Your task to perform on an android device: check storage Image 0: 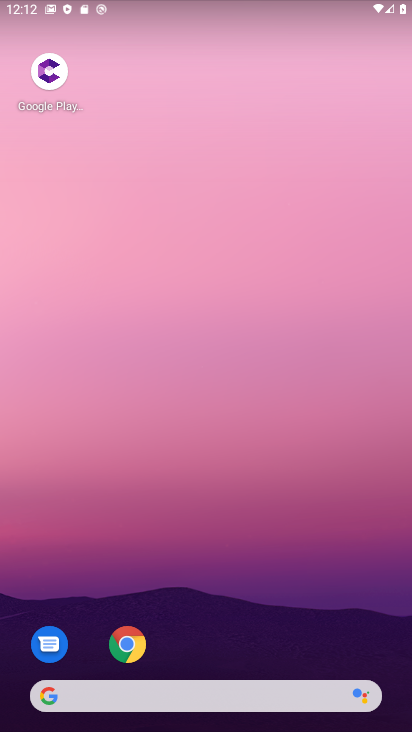
Step 0: drag from (285, 656) to (128, 76)
Your task to perform on an android device: check storage Image 1: 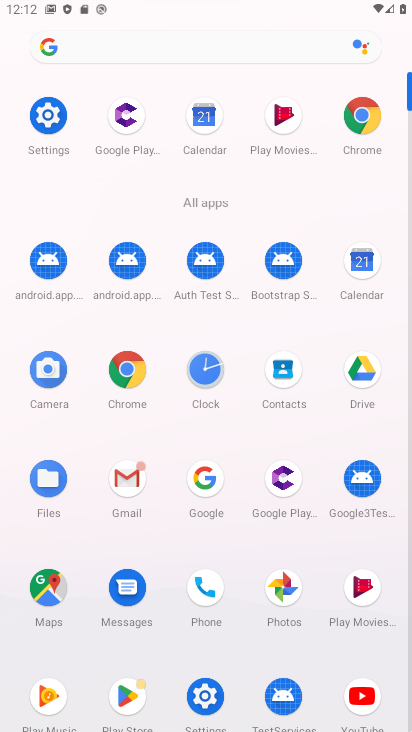
Step 1: click (49, 127)
Your task to perform on an android device: check storage Image 2: 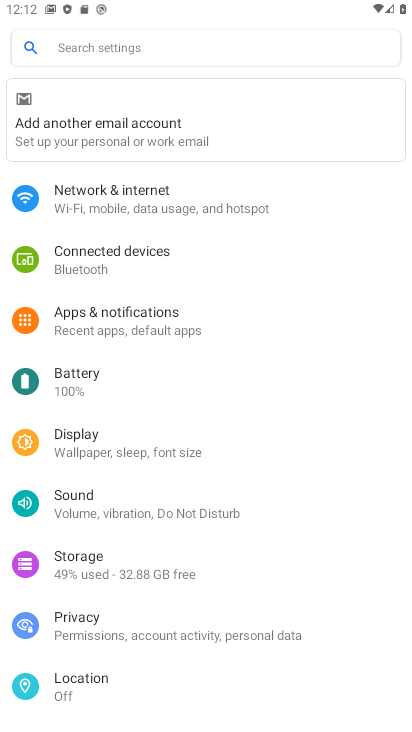
Step 2: click (78, 563)
Your task to perform on an android device: check storage Image 3: 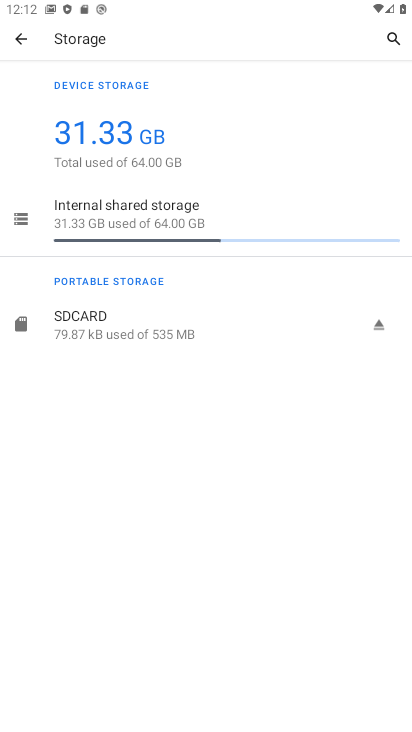
Step 3: task complete